Your task to perform on an android device: turn off notifications settings in the gmail app Image 0: 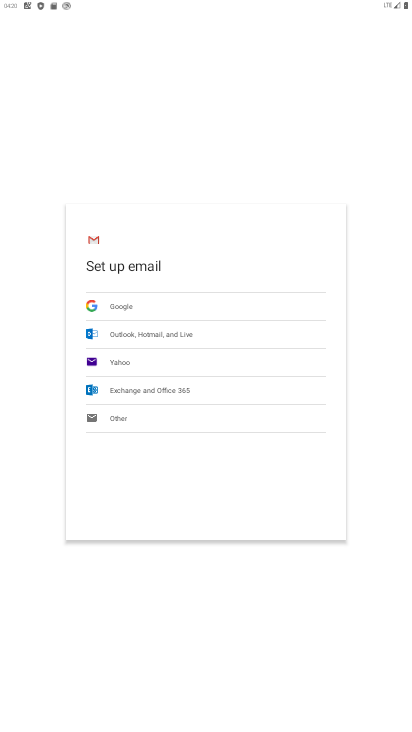
Step 0: press home button
Your task to perform on an android device: turn off notifications settings in the gmail app Image 1: 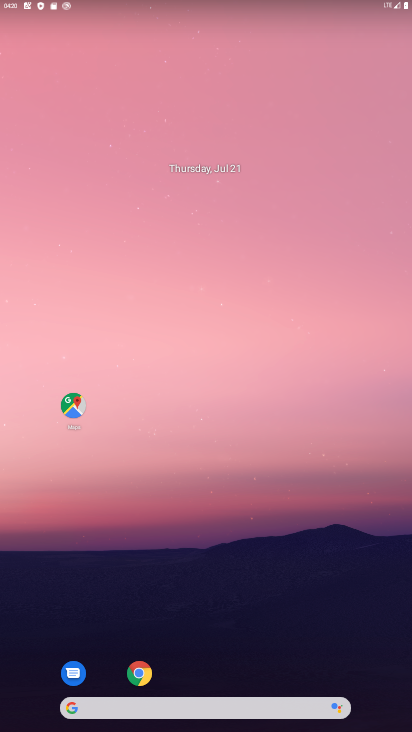
Step 1: drag from (330, 642) to (57, 99)
Your task to perform on an android device: turn off notifications settings in the gmail app Image 2: 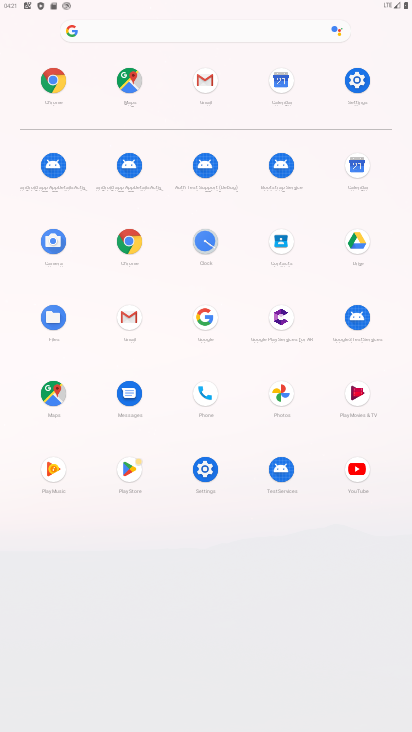
Step 2: click (210, 83)
Your task to perform on an android device: turn off notifications settings in the gmail app Image 3: 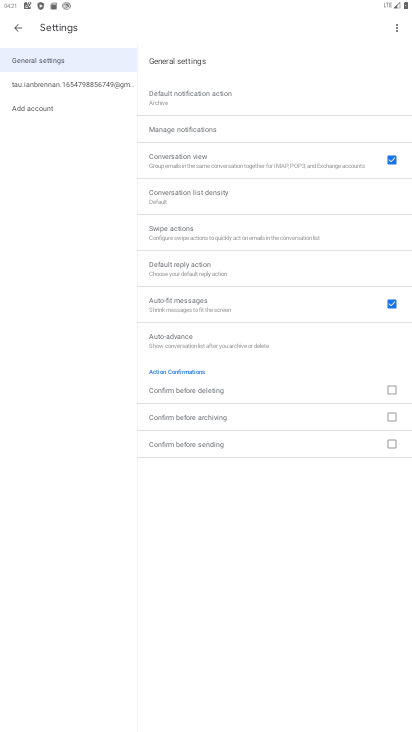
Step 3: click (89, 88)
Your task to perform on an android device: turn off notifications settings in the gmail app Image 4: 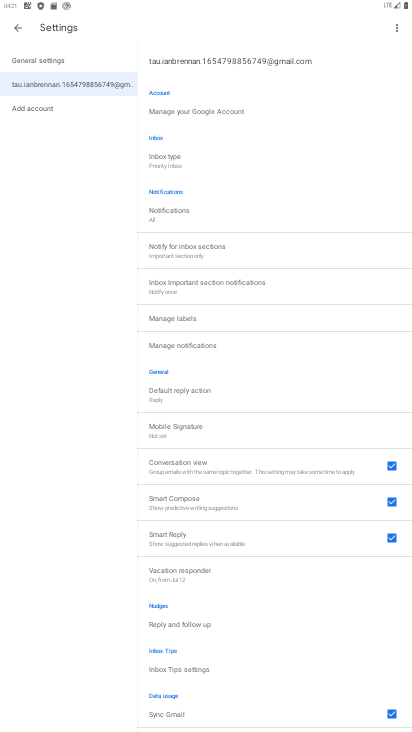
Step 4: click (173, 339)
Your task to perform on an android device: turn off notifications settings in the gmail app Image 5: 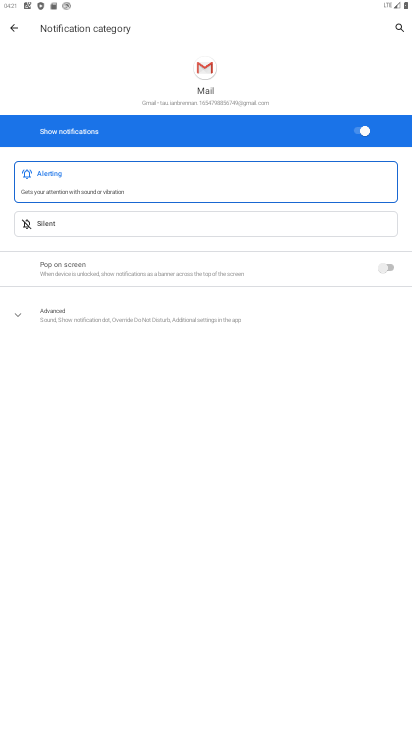
Step 5: click (351, 123)
Your task to perform on an android device: turn off notifications settings in the gmail app Image 6: 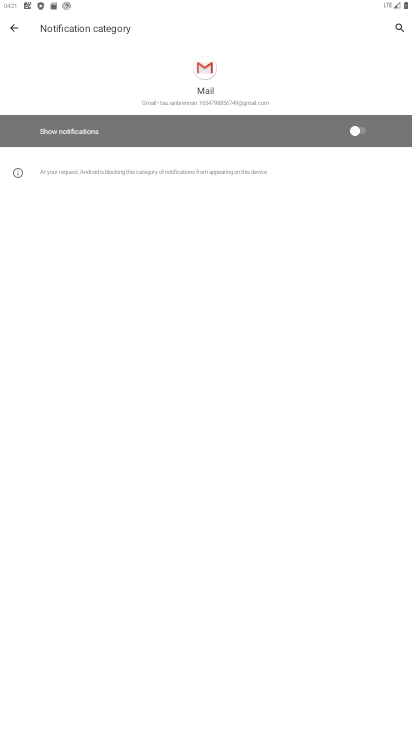
Step 6: task complete